Your task to perform on an android device: turn off javascript in the chrome app Image 0: 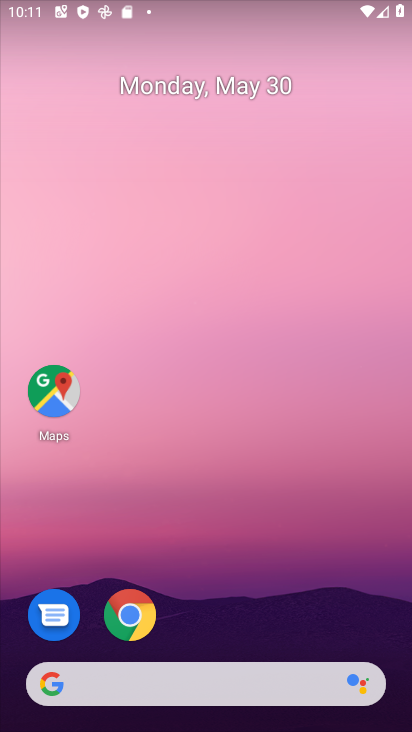
Step 0: click (133, 613)
Your task to perform on an android device: turn off javascript in the chrome app Image 1: 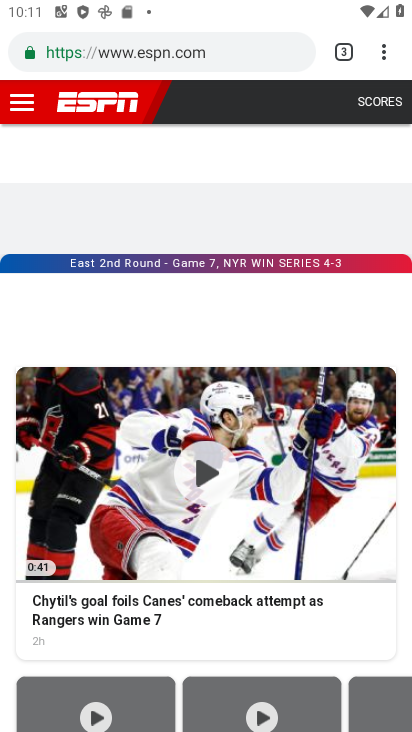
Step 1: click (395, 49)
Your task to perform on an android device: turn off javascript in the chrome app Image 2: 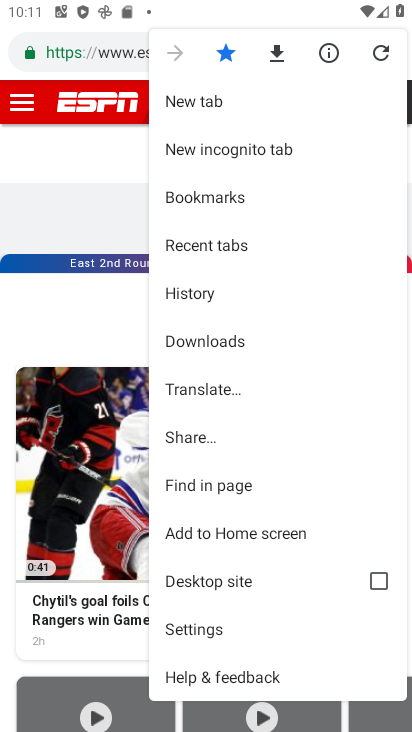
Step 2: click (224, 624)
Your task to perform on an android device: turn off javascript in the chrome app Image 3: 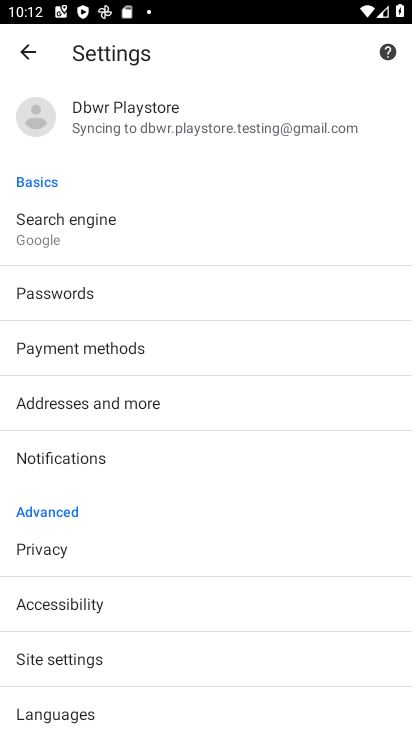
Step 3: click (119, 658)
Your task to perform on an android device: turn off javascript in the chrome app Image 4: 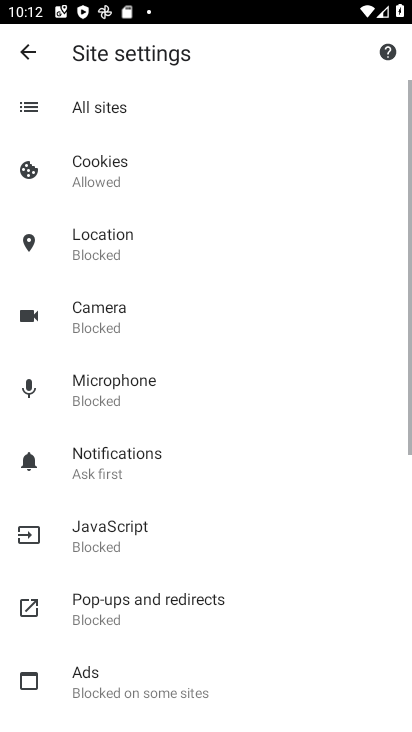
Step 4: click (126, 532)
Your task to perform on an android device: turn off javascript in the chrome app Image 5: 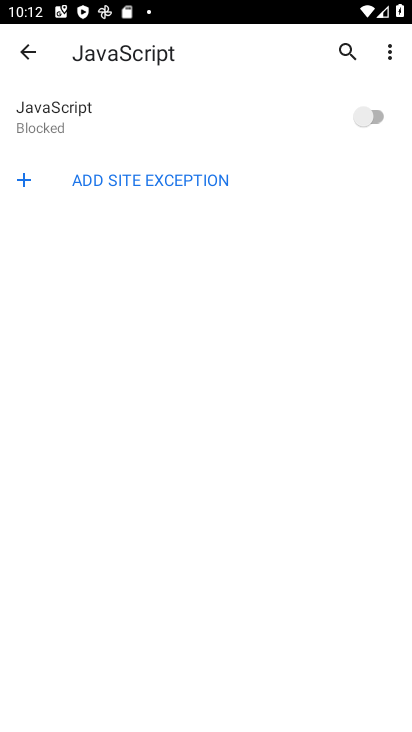
Step 5: task complete